Your task to perform on an android device: Check the weather Image 0: 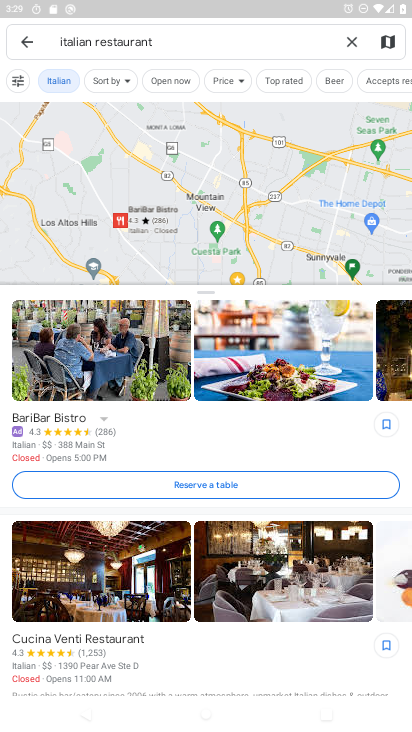
Step 0: press home button
Your task to perform on an android device: Check the weather Image 1: 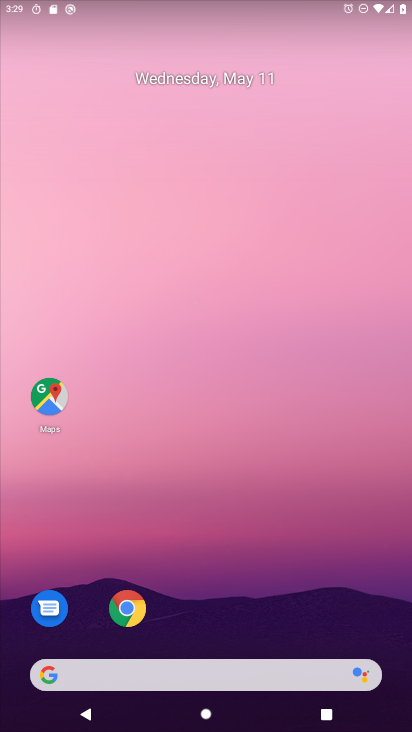
Step 1: drag from (181, 623) to (265, 269)
Your task to perform on an android device: Check the weather Image 2: 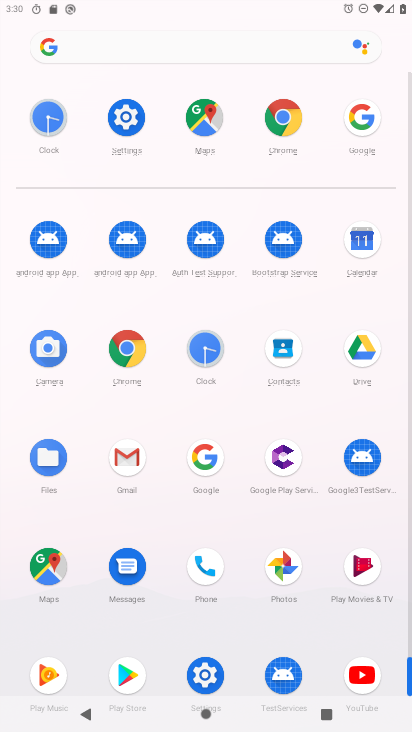
Step 2: click (197, 488)
Your task to perform on an android device: Check the weather Image 3: 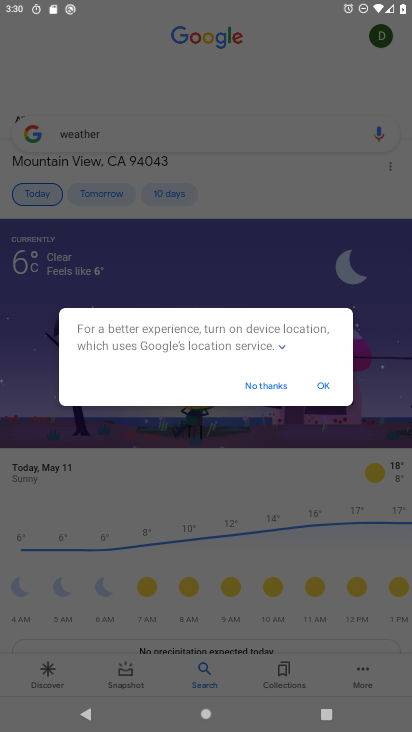
Step 3: click (328, 398)
Your task to perform on an android device: Check the weather Image 4: 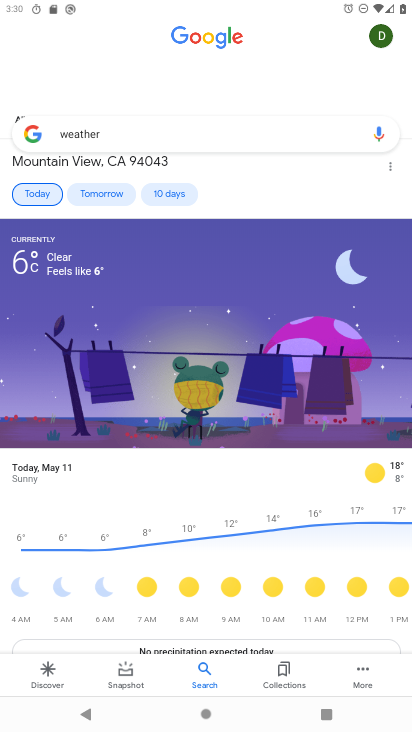
Step 4: task complete